Your task to perform on an android device: toggle translation in the chrome app Image 0: 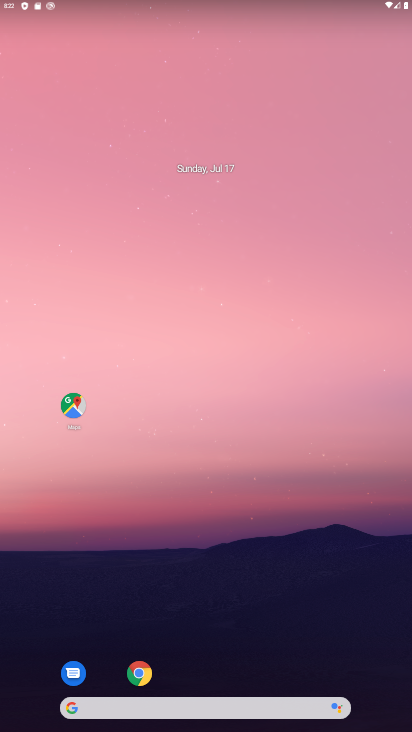
Step 0: click (209, 141)
Your task to perform on an android device: toggle translation in the chrome app Image 1: 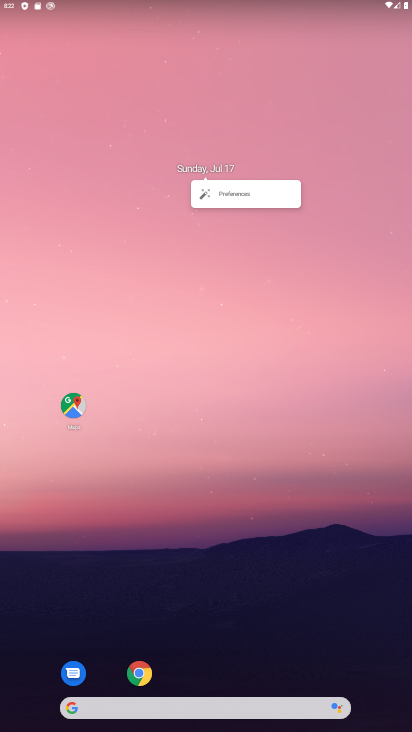
Step 1: click (203, 652)
Your task to perform on an android device: toggle translation in the chrome app Image 2: 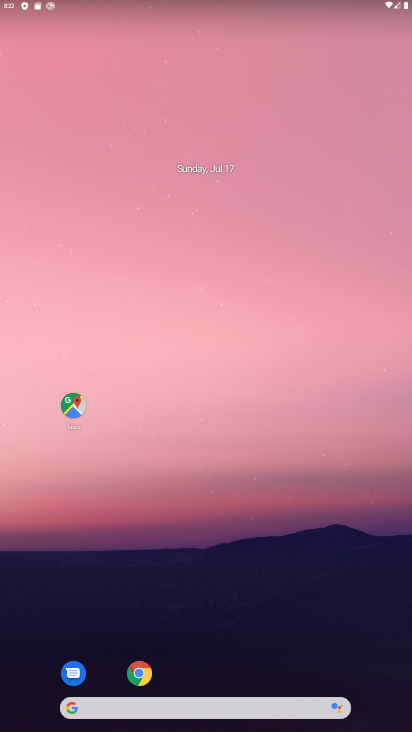
Step 2: drag from (274, 708) to (267, 69)
Your task to perform on an android device: toggle translation in the chrome app Image 3: 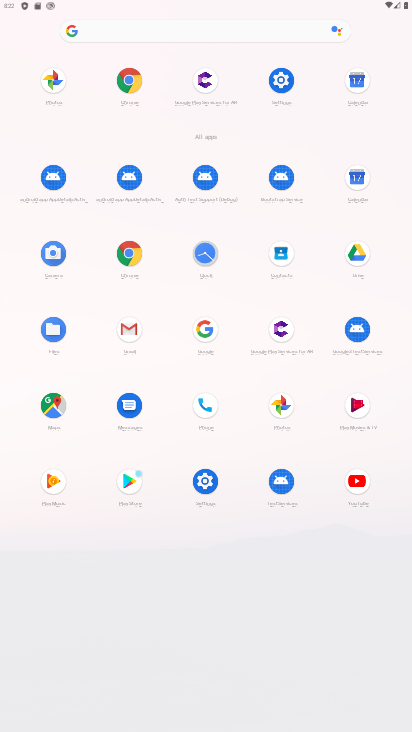
Step 3: click (138, 80)
Your task to perform on an android device: toggle translation in the chrome app Image 4: 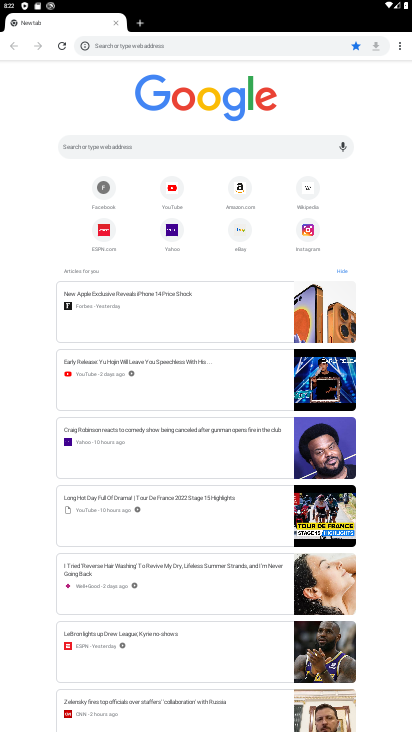
Step 4: drag from (396, 45) to (319, 214)
Your task to perform on an android device: toggle translation in the chrome app Image 5: 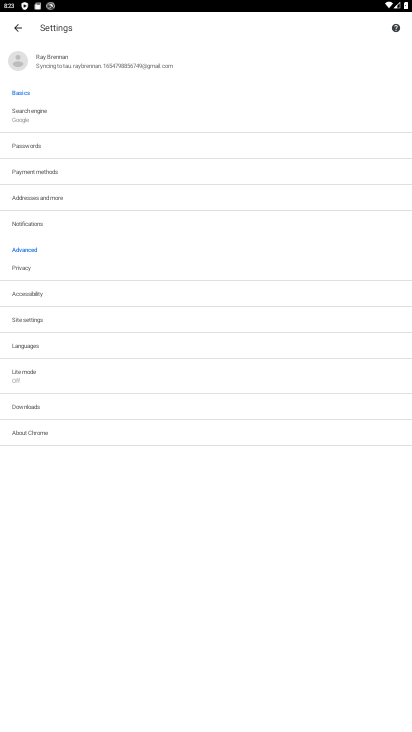
Step 5: click (46, 321)
Your task to perform on an android device: toggle translation in the chrome app Image 6: 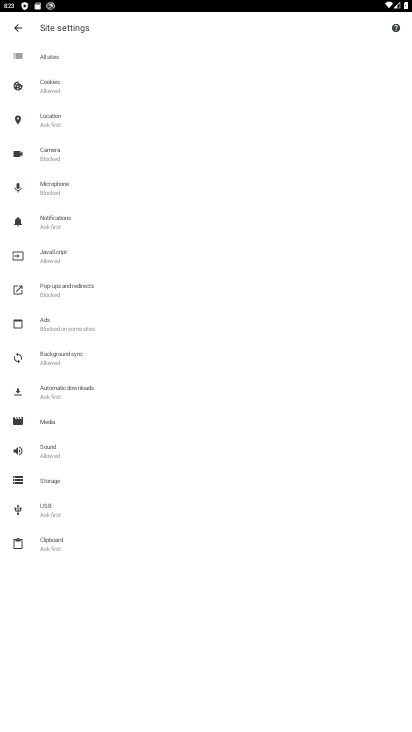
Step 6: click (12, 19)
Your task to perform on an android device: toggle translation in the chrome app Image 7: 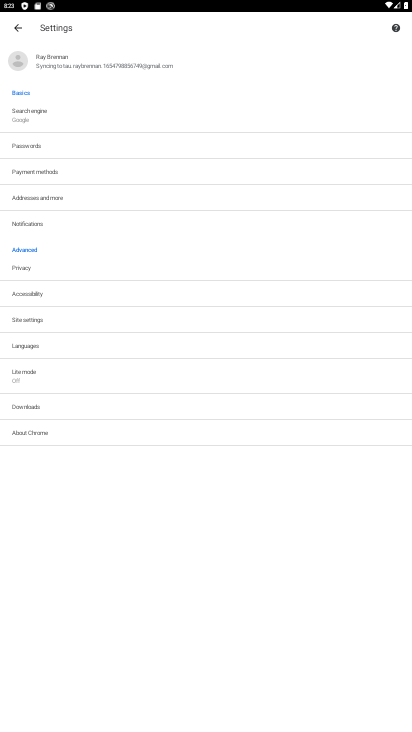
Step 7: click (34, 344)
Your task to perform on an android device: toggle translation in the chrome app Image 8: 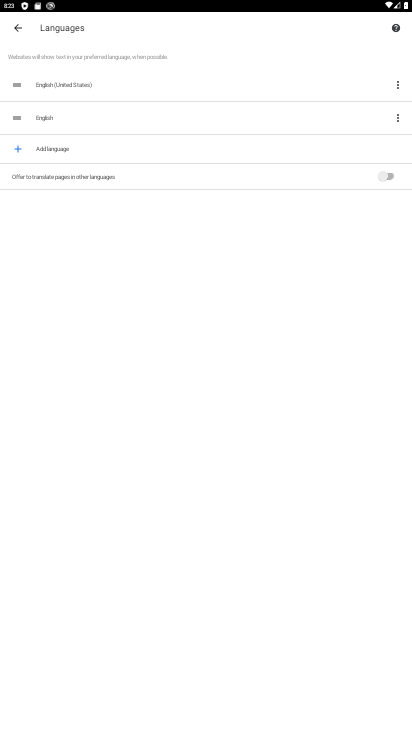
Step 8: click (389, 169)
Your task to perform on an android device: toggle translation in the chrome app Image 9: 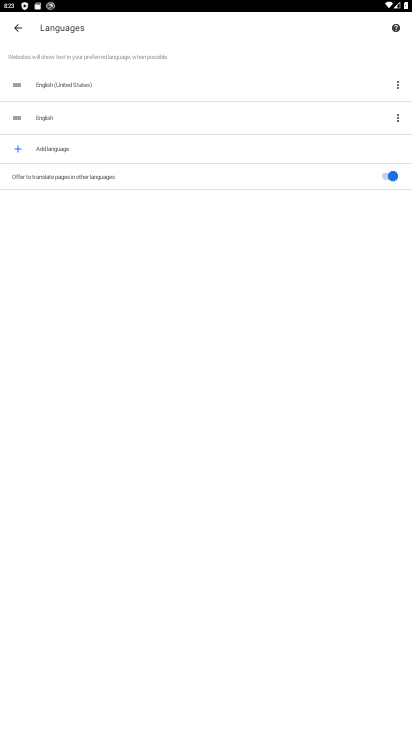
Step 9: task complete